Your task to perform on an android device: Is it going to rain this weekend? Image 0: 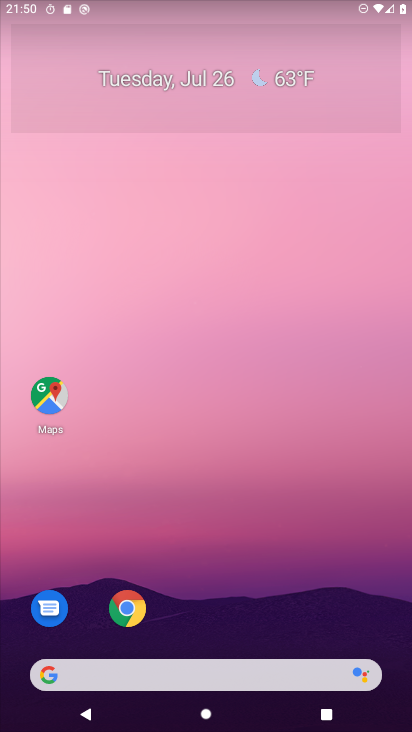
Step 0: click (112, 672)
Your task to perform on an android device: Is it going to rain this weekend? Image 1: 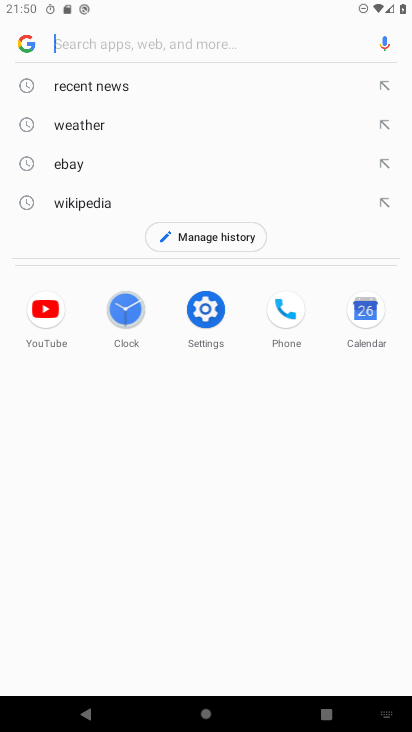
Step 1: type "Is it going to rain this weekend?"
Your task to perform on an android device: Is it going to rain this weekend? Image 2: 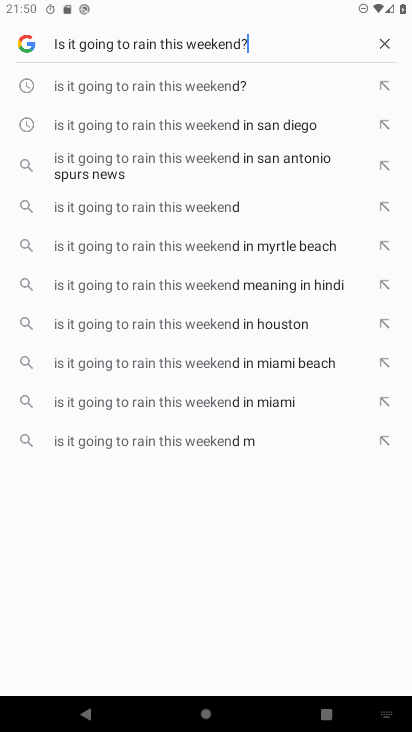
Step 2: type ""
Your task to perform on an android device: Is it going to rain this weekend? Image 3: 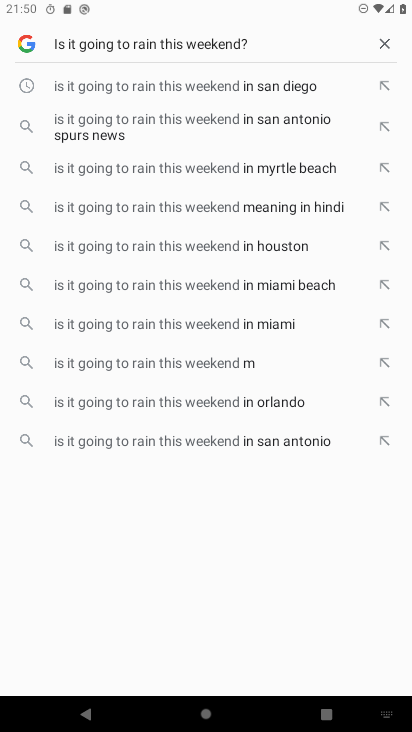
Step 3: type ""
Your task to perform on an android device: Is it going to rain this weekend? Image 4: 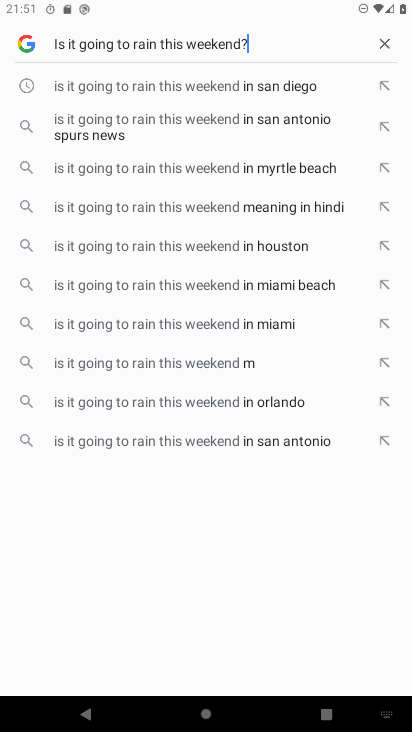
Step 4: type ""
Your task to perform on an android device: Is it going to rain this weekend? Image 5: 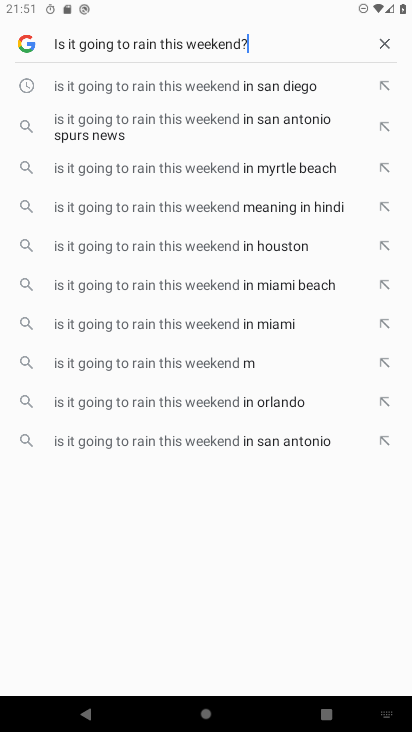
Step 5: task complete